Your task to perform on an android device: toggle wifi Image 0: 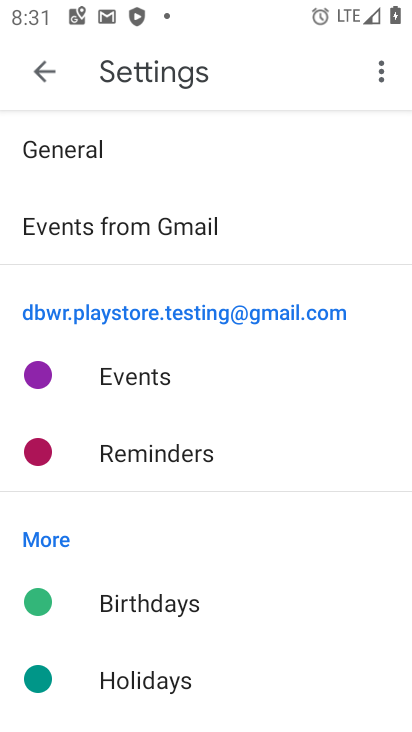
Step 0: press home button
Your task to perform on an android device: toggle wifi Image 1: 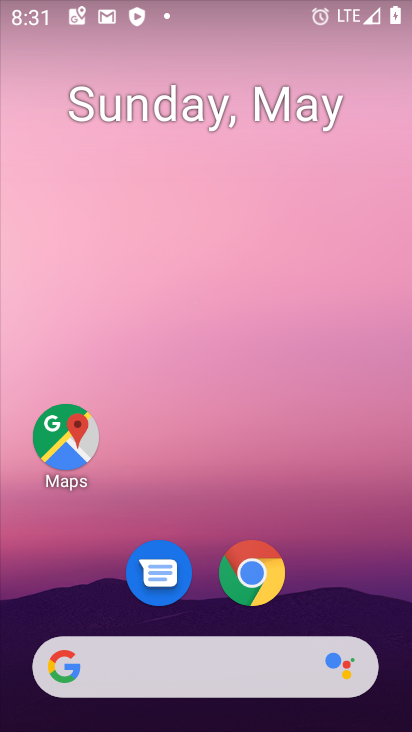
Step 1: drag from (252, 487) to (213, 1)
Your task to perform on an android device: toggle wifi Image 2: 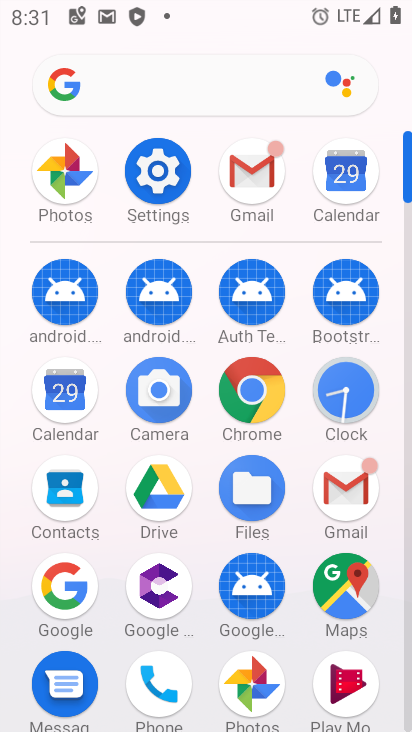
Step 2: click (151, 175)
Your task to perform on an android device: toggle wifi Image 3: 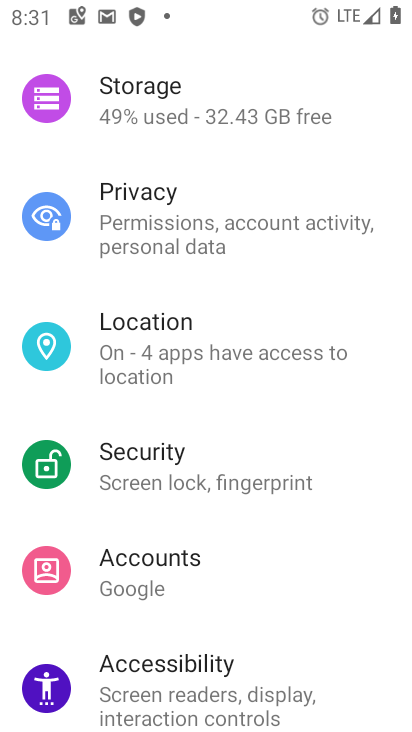
Step 3: drag from (252, 177) to (324, 727)
Your task to perform on an android device: toggle wifi Image 4: 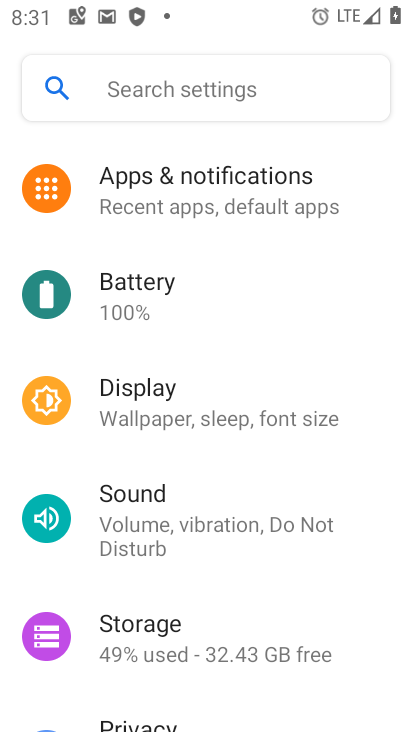
Step 4: drag from (254, 295) to (301, 728)
Your task to perform on an android device: toggle wifi Image 5: 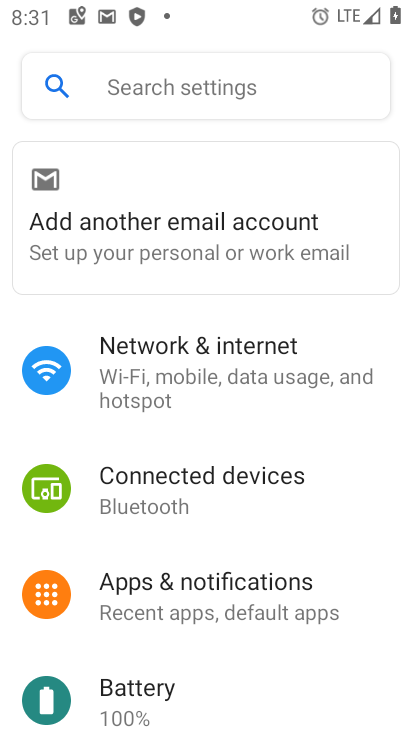
Step 5: click (243, 362)
Your task to perform on an android device: toggle wifi Image 6: 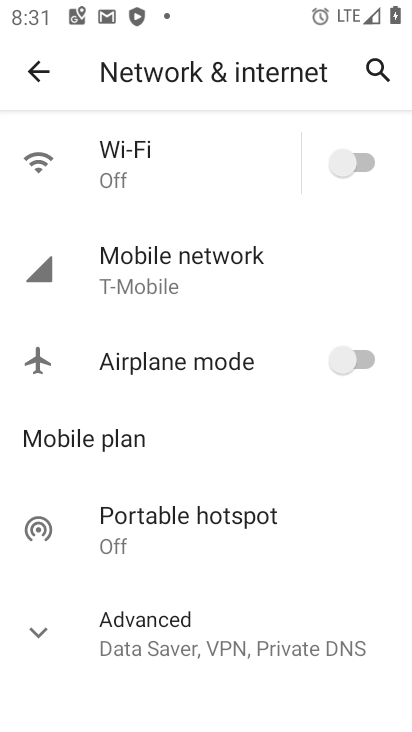
Step 6: click (353, 148)
Your task to perform on an android device: toggle wifi Image 7: 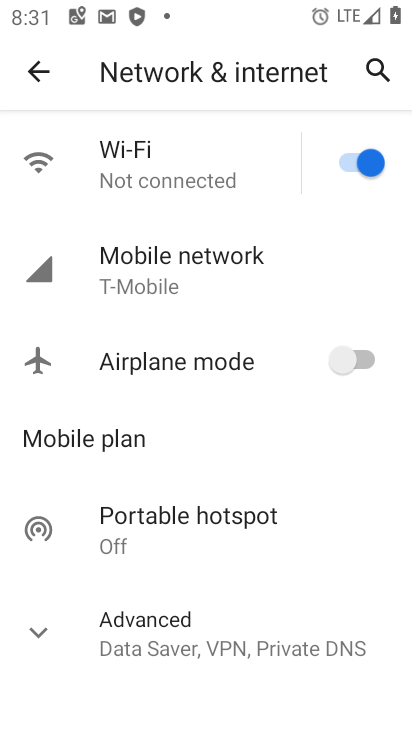
Step 7: task complete